Your task to perform on an android device: turn pop-ups on in chrome Image 0: 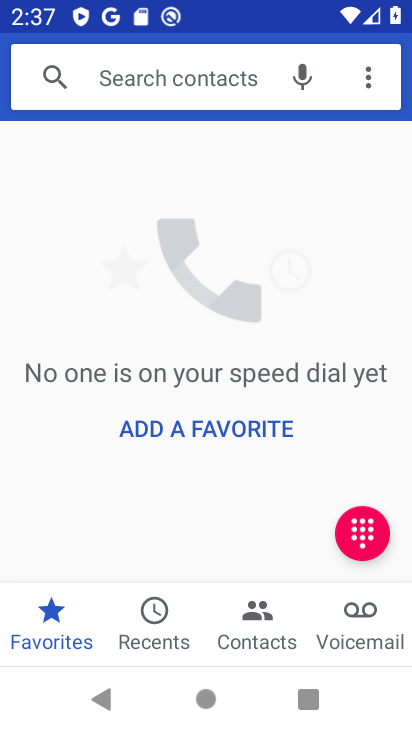
Step 0: press home button
Your task to perform on an android device: turn pop-ups on in chrome Image 1: 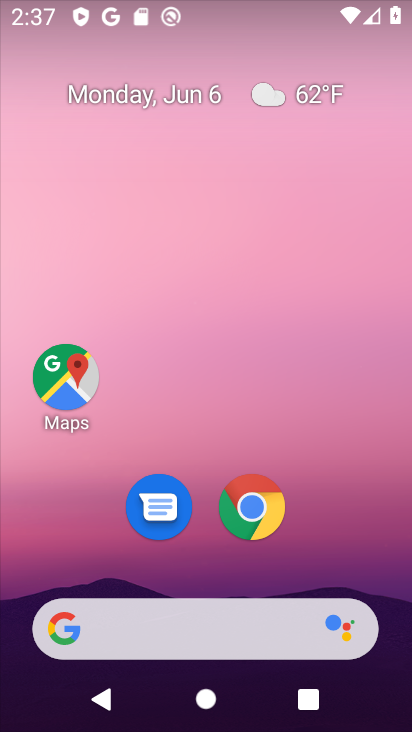
Step 1: click (242, 499)
Your task to perform on an android device: turn pop-ups on in chrome Image 2: 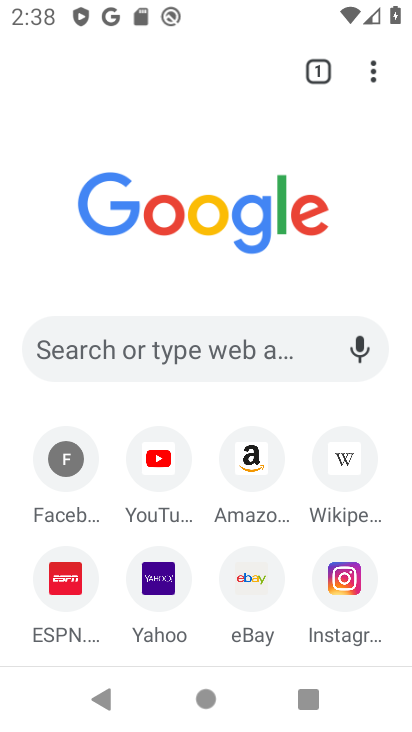
Step 2: click (375, 66)
Your task to perform on an android device: turn pop-ups on in chrome Image 3: 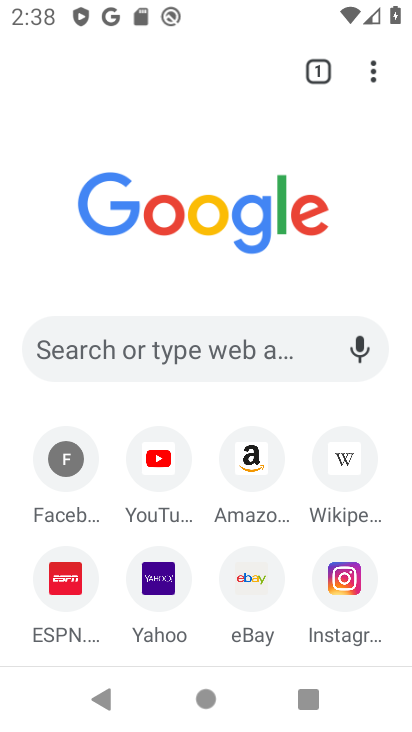
Step 3: click (371, 70)
Your task to perform on an android device: turn pop-ups on in chrome Image 4: 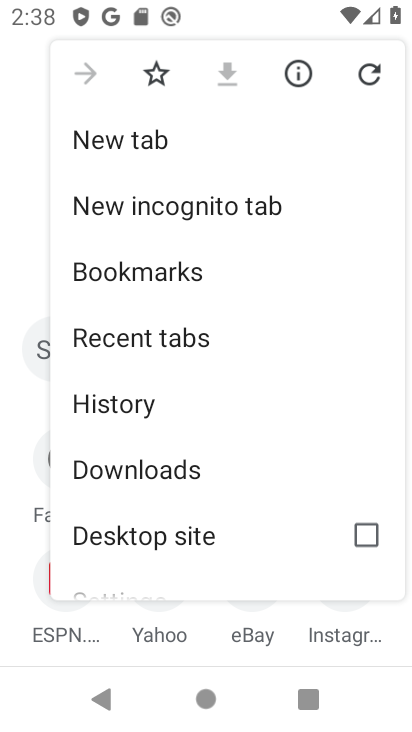
Step 4: drag from (283, 514) to (228, 148)
Your task to perform on an android device: turn pop-ups on in chrome Image 5: 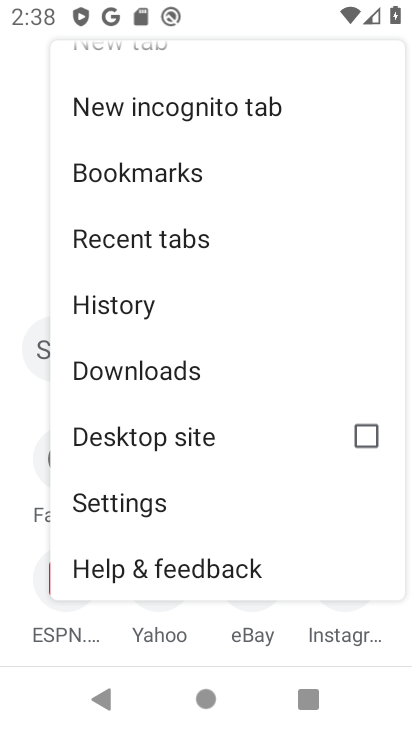
Step 5: click (145, 509)
Your task to perform on an android device: turn pop-ups on in chrome Image 6: 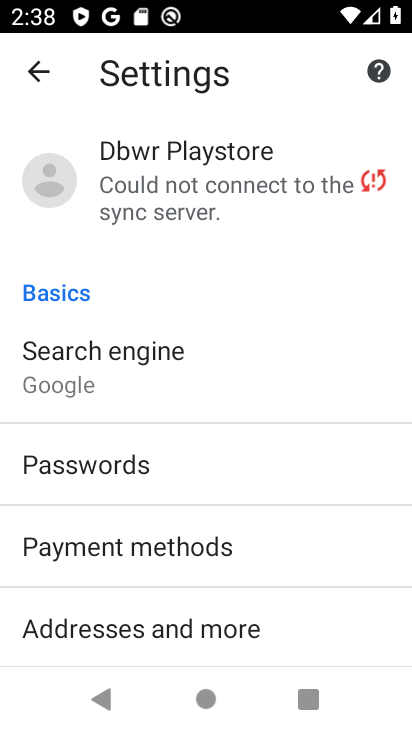
Step 6: drag from (306, 602) to (280, 203)
Your task to perform on an android device: turn pop-ups on in chrome Image 7: 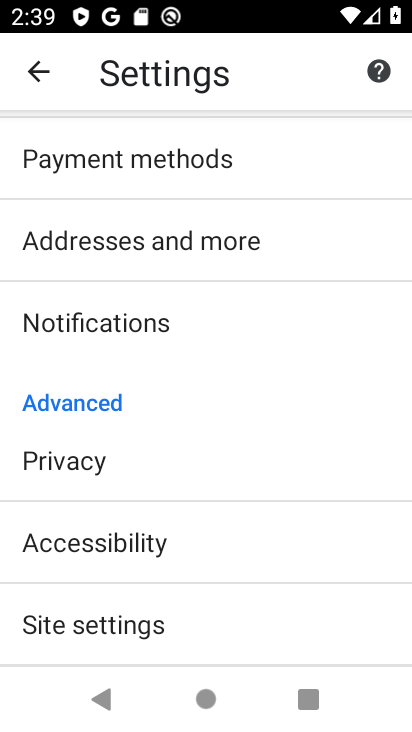
Step 7: click (107, 632)
Your task to perform on an android device: turn pop-ups on in chrome Image 8: 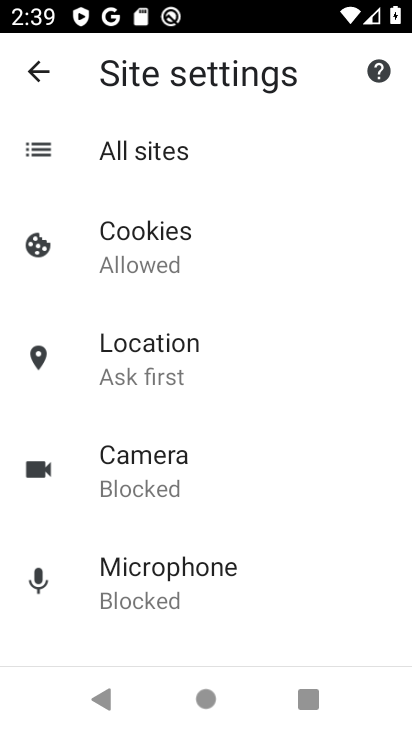
Step 8: click (263, 236)
Your task to perform on an android device: turn pop-ups on in chrome Image 9: 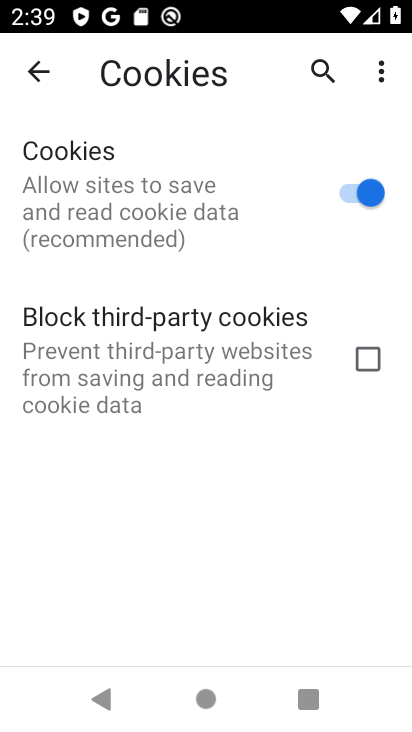
Step 9: click (43, 69)
Your task to perform on an android device: turn pop-ups on in chrome Image 10: 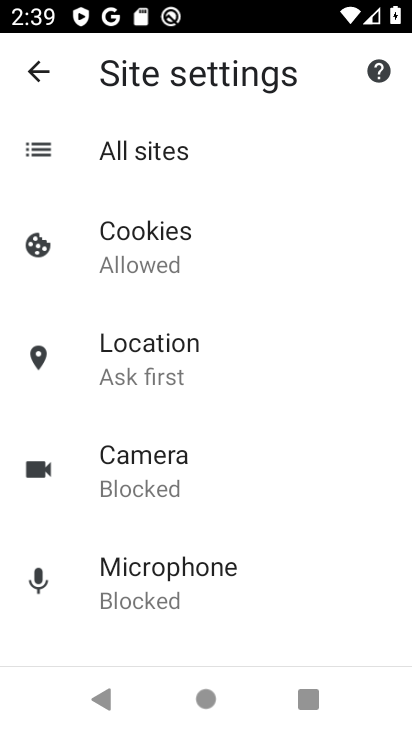
Step 10: click (37, 69)
Your task to perform on an android device: turn pop-ups on in chrome Image 11: 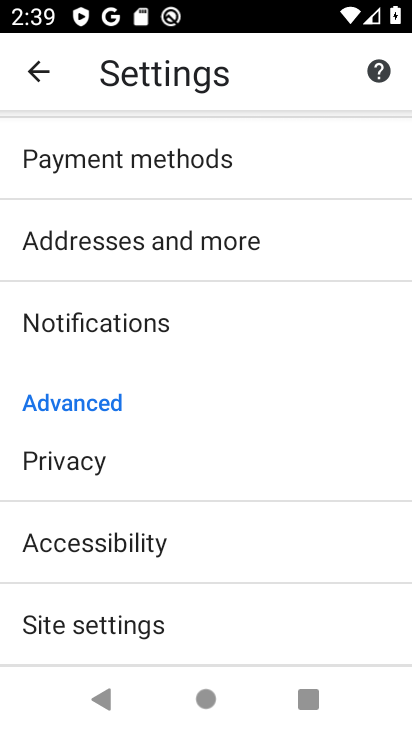
Step 11: drag from (270, 631) to (333, 237)
Your task to perform on an android device: turn pop-ups on in chrome Image 12: 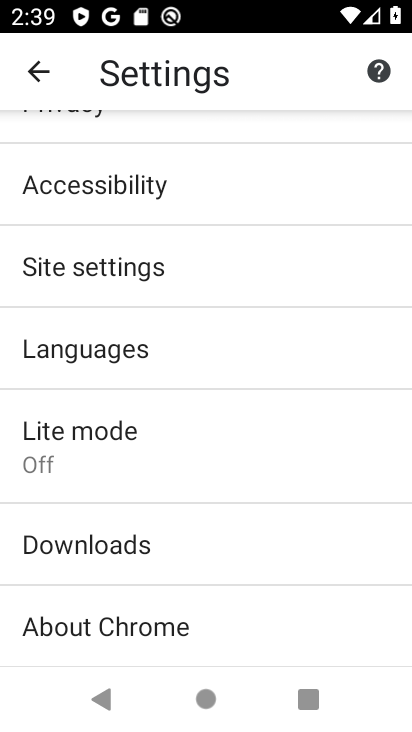
Step 12: drag from (236, 550) to (255, 230)
Your task to perform on an android device: turn pop-ups on in chrome Image 13: 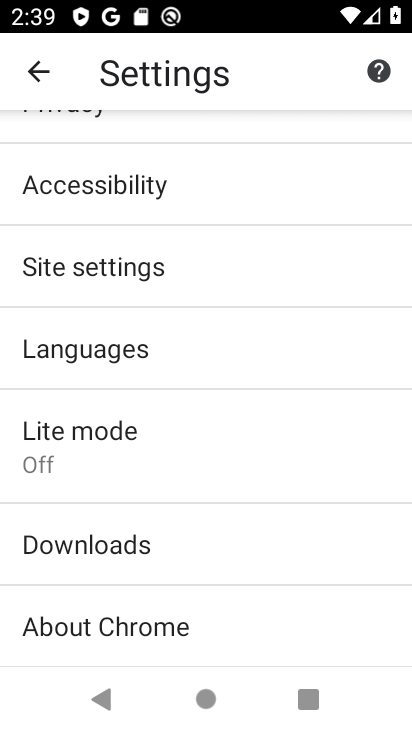
Step 13: drag from (282, 554) to (272, 248)
Your task to perform on an android device: turn pop-ups on in chrome Image 14: 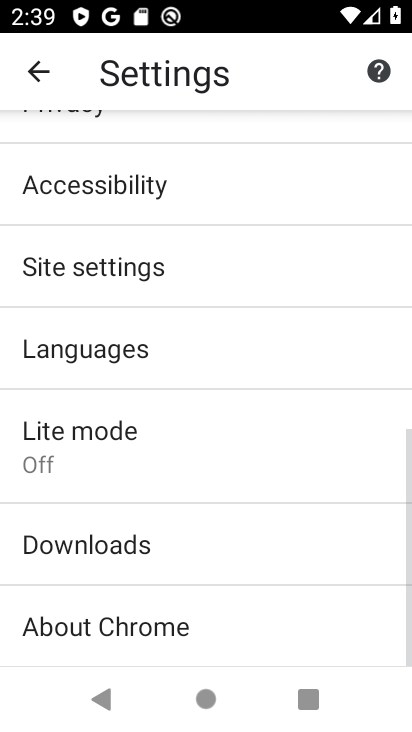
Step 14: click (86, 256)
Your task to perform on an android device: turn pop-ups on in chrome Image 15: 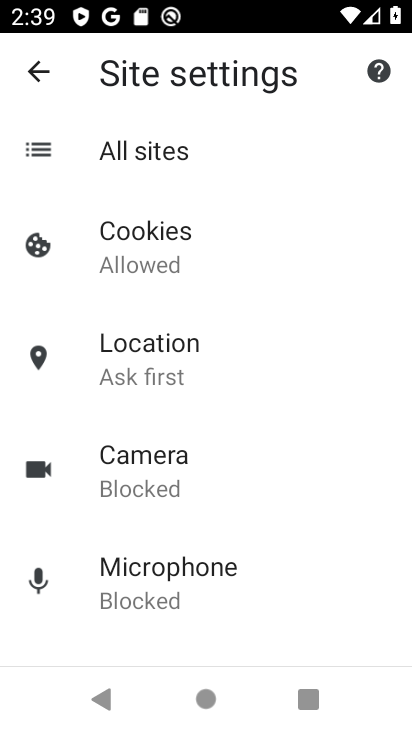
Step 15: drag from (287, 569) to (337, 148)
Your task to perform on an android device: turn pop-ups on in chrome Image 16: 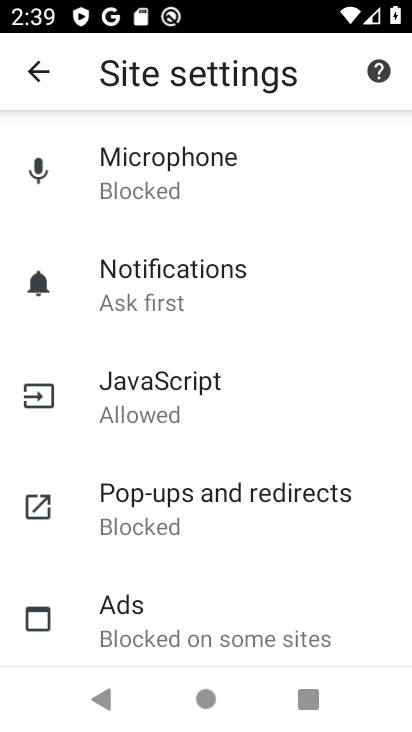
Step 16: click (164, 507)
Your task to perform on an android device: turn pop-ups on in chrome Image 17: 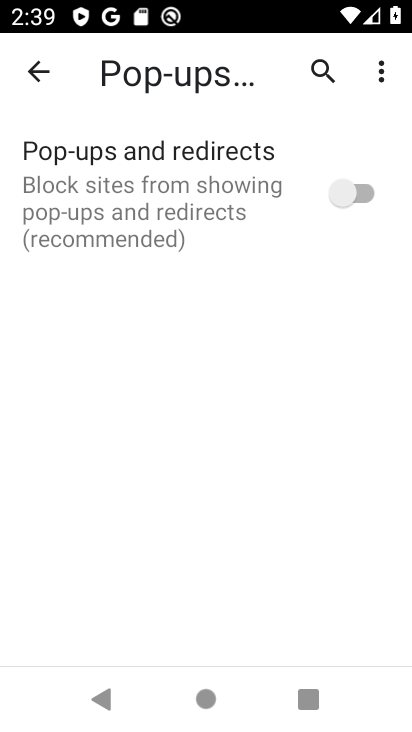
Step 17: click (370, 184)
Your task to perform on an android device: turn pop-ups on in chrome Image 18: 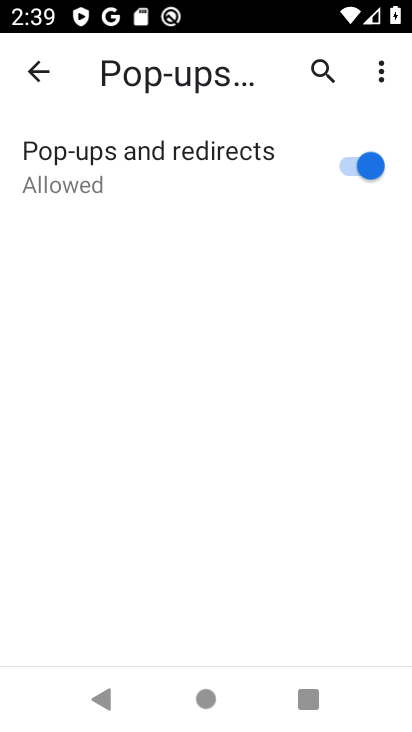
Step 18: task complete